Your task to perform on an android device: turn off data saver in the chrome app Image 0: 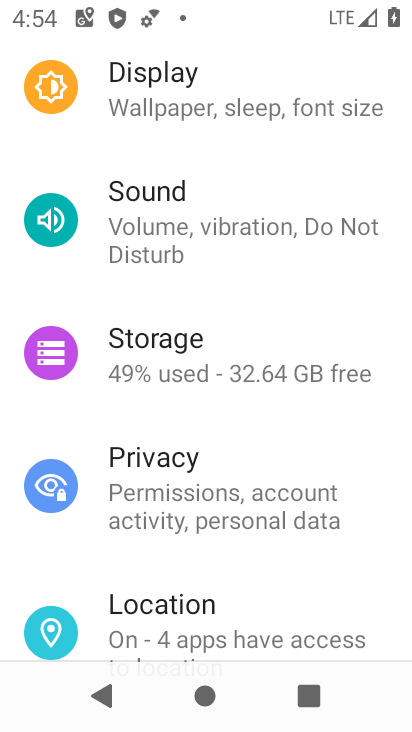
Step 0: press home button
Your task to perform on an android device: turn off data saver in the chrome app Image 1: 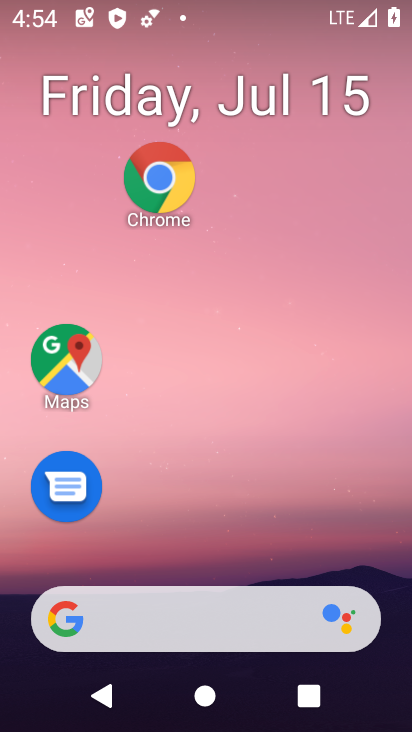
Step 1: drag from (210, 440) to (217, 150)
Your task to perform on an android device: turn off data saver in the chrome app Image 2: 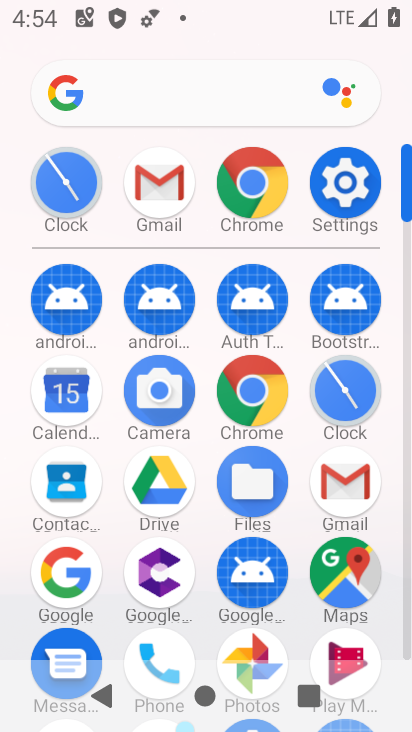
Step 2: click (226, 203)
Your task to perform on an android device: turn off data saver in the chrome app Image 3: 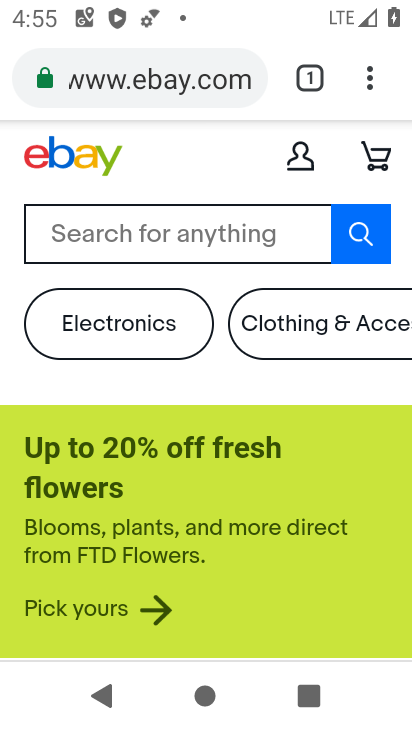
Step 3: click (371, 75)
Your task to perform on an android device: turn off data saver in the chrome app Image 4: 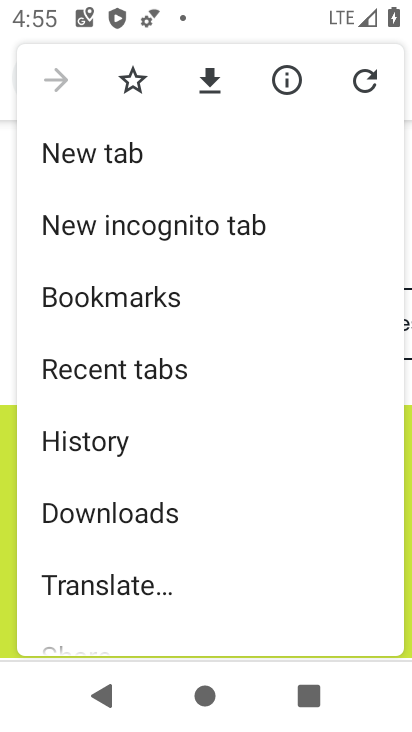
Step 4: drag from (110, 548) to (113, 384)
Your task to perform on an android device: turn off data saver in the chrome app Image 5: 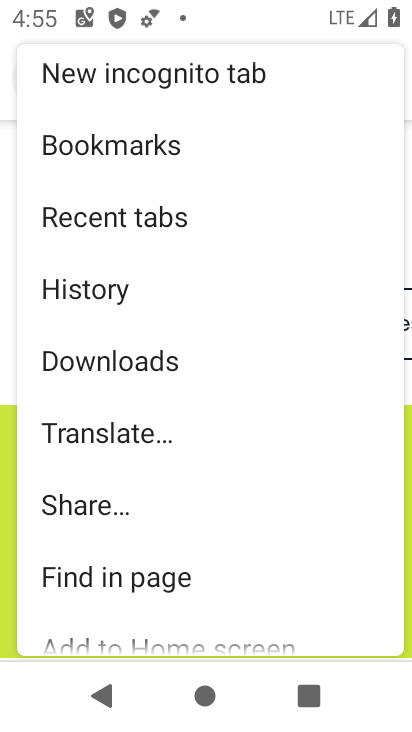
Step 5: drag from (215, 580) to (214, 354)
Your task to perform on an android device: turn off data saver in the chrome app Image 6: 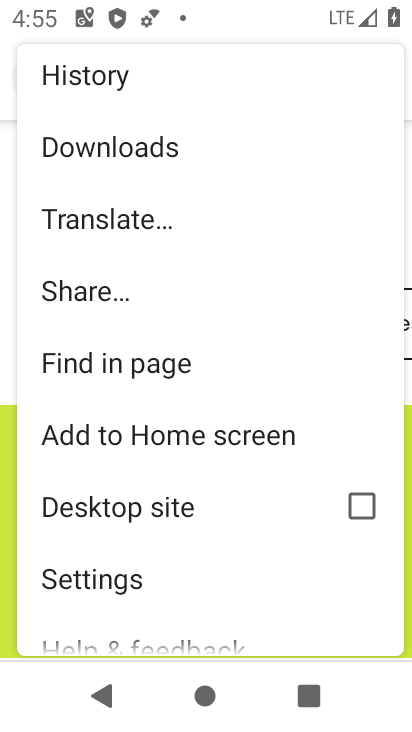
Step 6: drag from (288, 496) to (283, 303)
Your task to perform on an android device: turn off data saver in the chrome app Image 7: 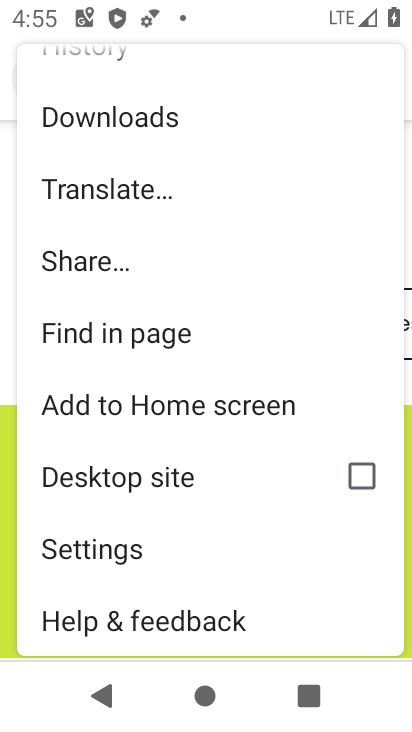
Step 7: click (72, 558)
Your task to perform on an android device: turn off data saver in the chrome app Image 8: 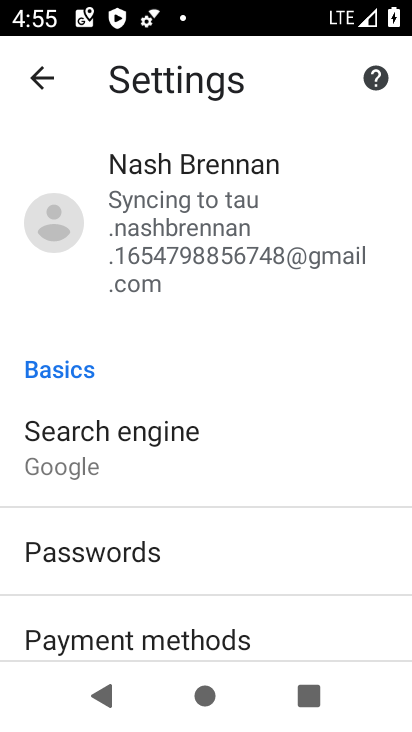
Step 8: drag from (283, 465) to (283, 270)
Your task to perform on an android device: turn off data saver in the chrome app Image 9: 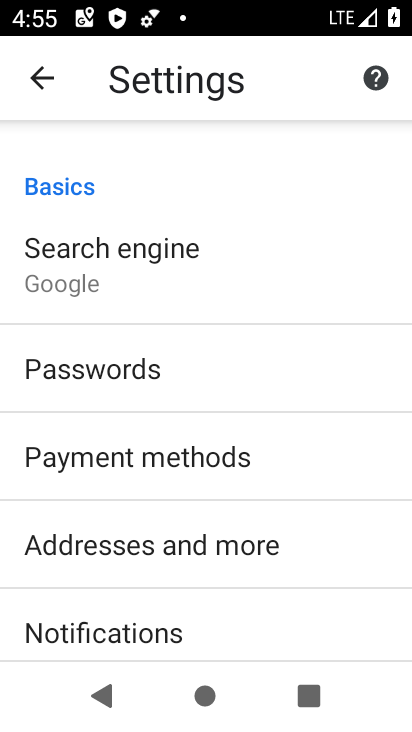
Step 9: drag from (217, 564) to (217, 374)
Your task to perform on an android device: turn off data saver in the chrome app Image 10: 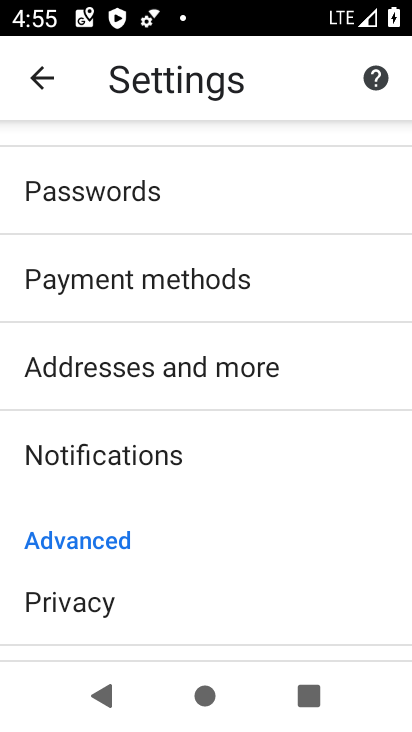
Step 10: drag from (222, 499) to (242, 257)
Your task to perform on an android device: turn off data saver in the chrome app Image 11: 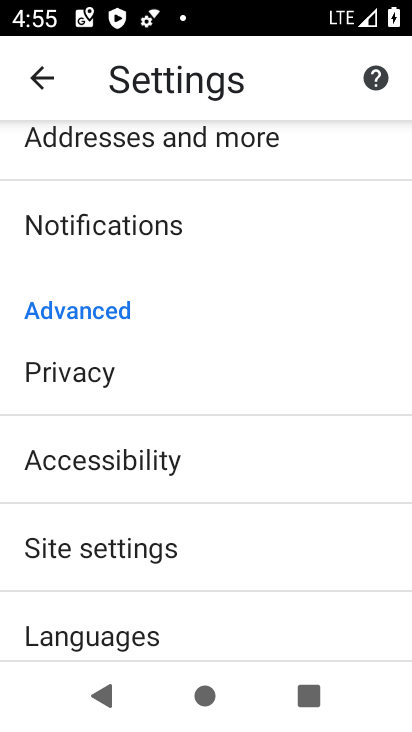
Step 11: drag from (215, 497) to (215, 325)
Your task to perform on an android device: turn off data saver in the chrome app Image 12: 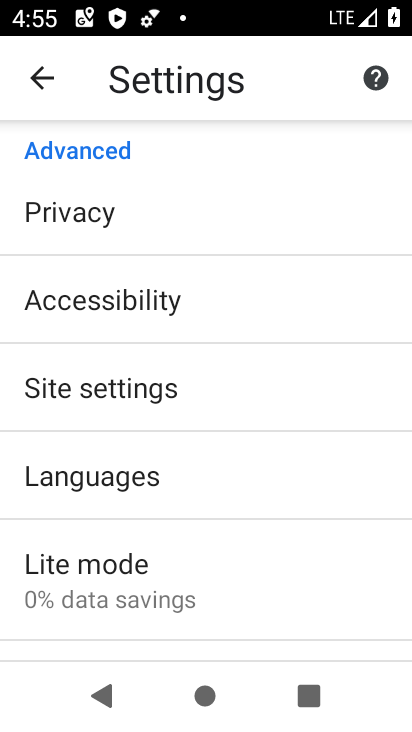
Step 12: click (124, 565)
Your task to perform on an android device: turn off data saver in the chrome app Image 13: 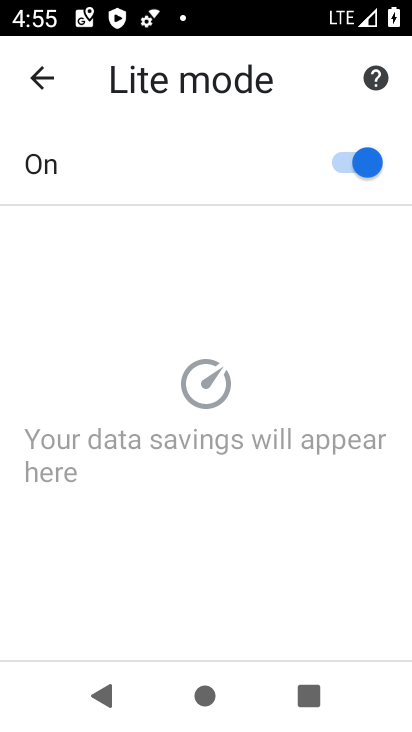
Step 13: click (336, 167)
Your task to perform on an android device: turn off data saver in the chrome app Image 14: 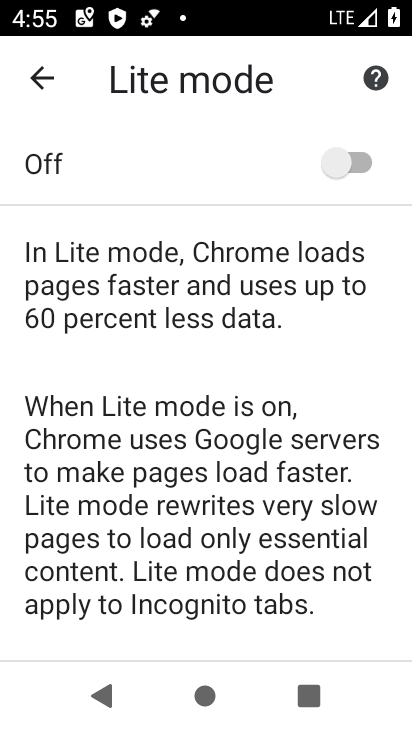
Step 14: task complete